Your task to perform on an android device: Go to battery settings Image 0: 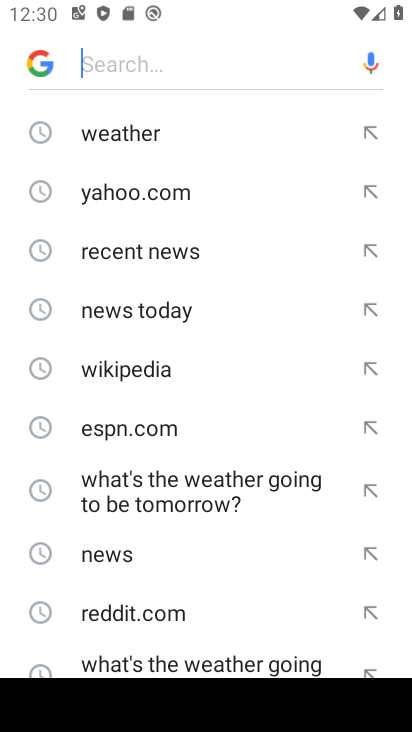
Step 0: press home button
Your task to perform on an android device: Go to battery settings Image 1: 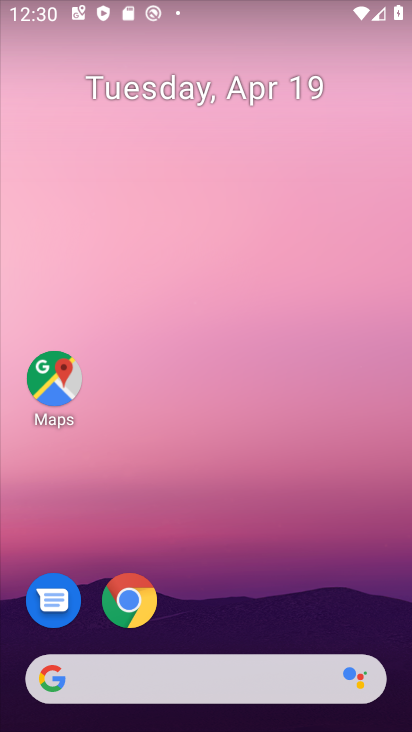
Step 1: drag from (248, 104) to (224, 16)
Your task to perform on an android device: Go to battery settings Image 2: 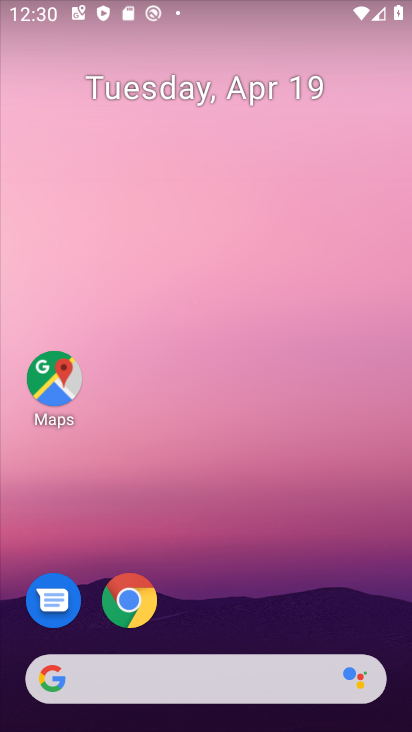
Step 2: drag from (287, 391) to (241, 89)
Your task to perform on an android device: Go to battery settings Image 3: 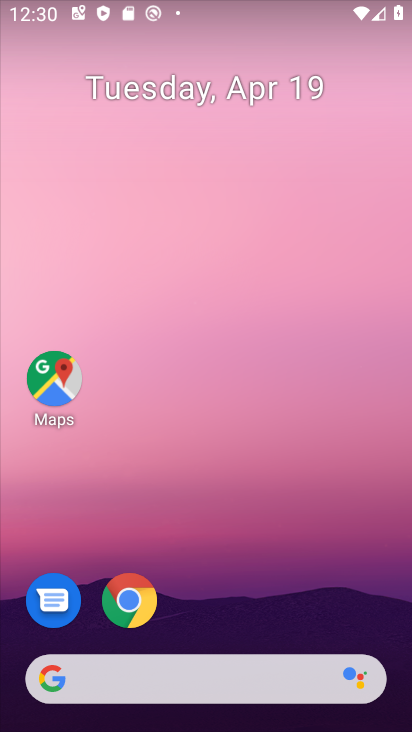
Step 3: drag from (328, 549) to (351, 0)
Your task to perform on an android device: Go to battery settings Image 4: 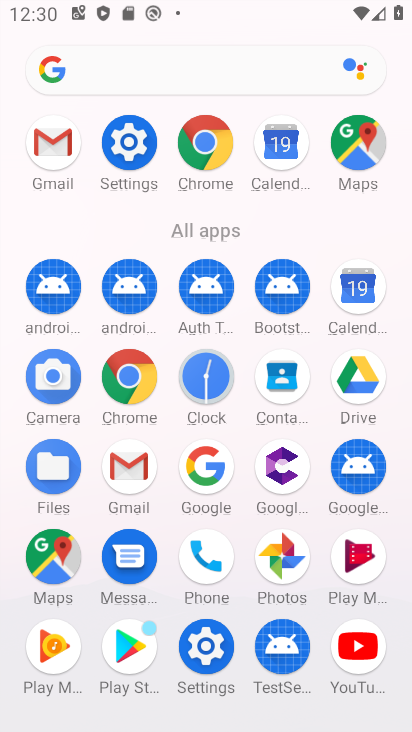
Step 4: click (138, 148)
Your task to perform on an android device: Go to battery settings Image 5: 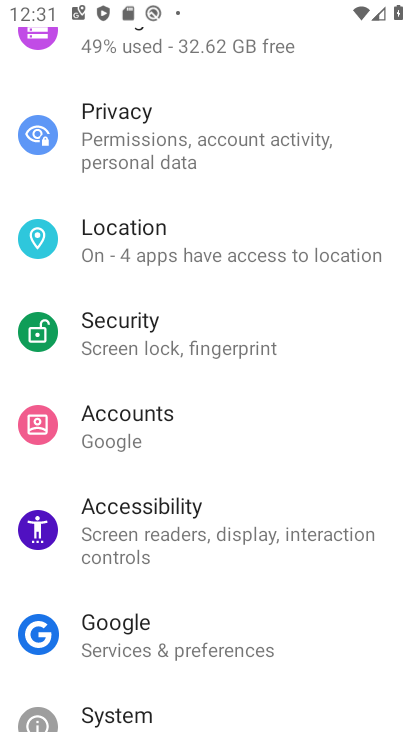
Step 5: drag from (171, 214) to (205, 537)
Your task to perform on an android device: Go to battery settings Image 6: 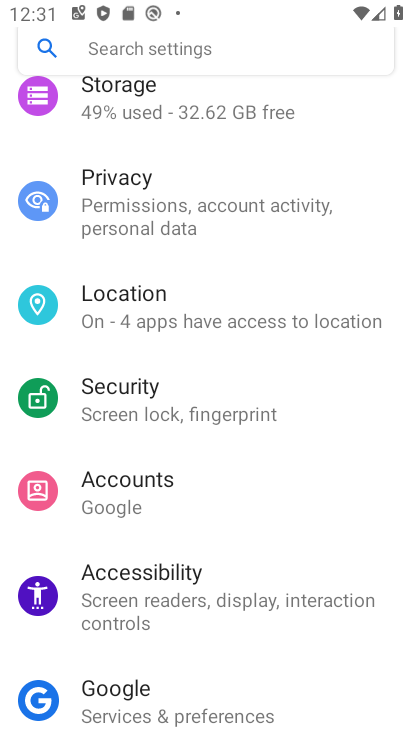
Step 6: drag from (174, 244) to (181, 565)
Your task to perform on an android device: Go to battery settings Image 7: 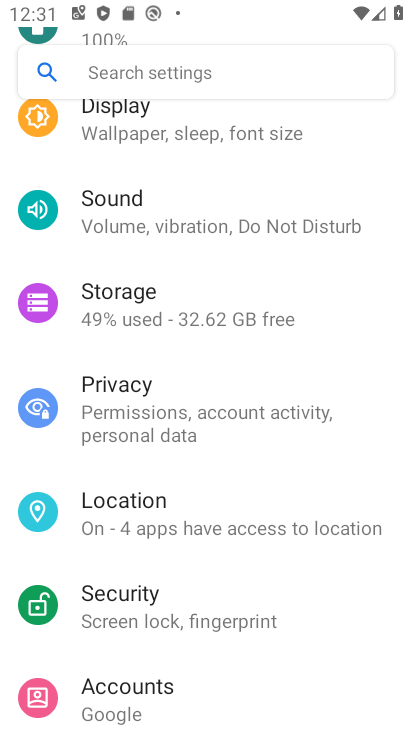
Step 7: drag from (197, 239) to (189, 598)
Your task to perform on an android device: Go to battery settings Image 8: 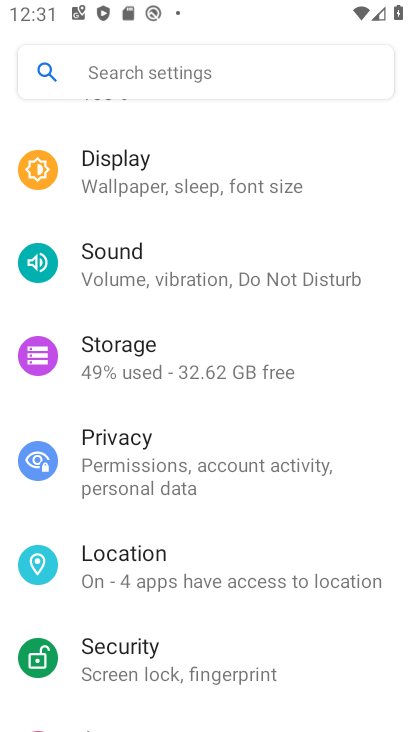
Step 8: drag from (177, 221) to (246, 551)
Your task to perform on an android device: Go to battery settings Image 9: 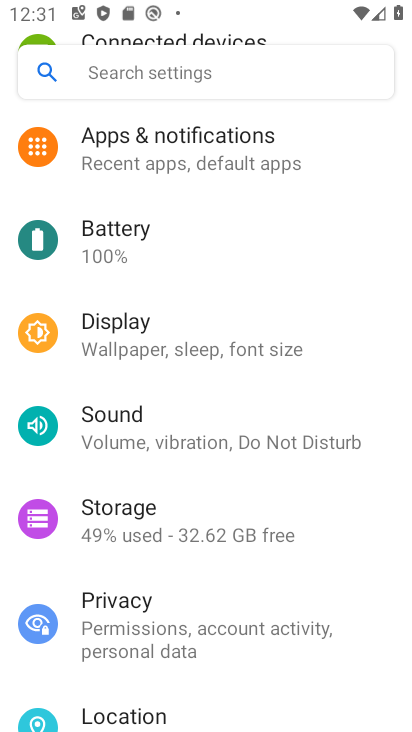
Step 9: drag from (198, 215) to (257, 526)
Your task to perform on an android device: Go to battery settings Image 10: 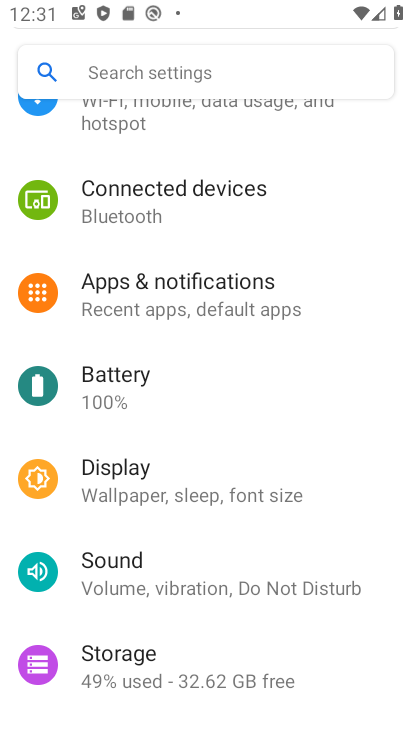
Step 10: click (158, 369)
Your task to perform on an android device: Go to battery settings Image 11: 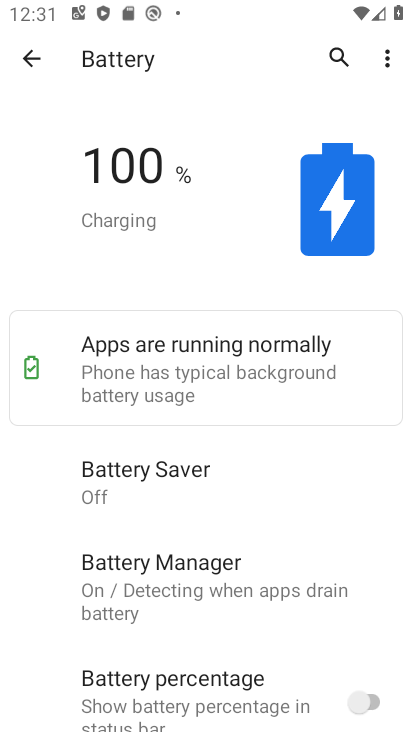
Step 11: task complete